Your task to perform on an android device: delete browsing data in the chrome app Image 0: 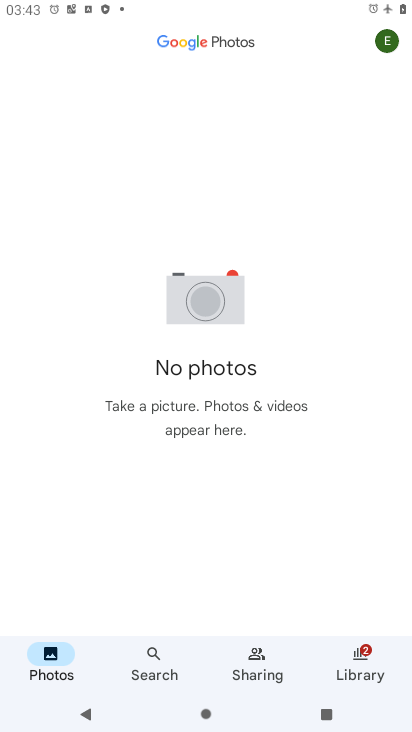
Step 0: press home button
Your task to perform on an android device: delete browsing data in the chrome app Image 1: 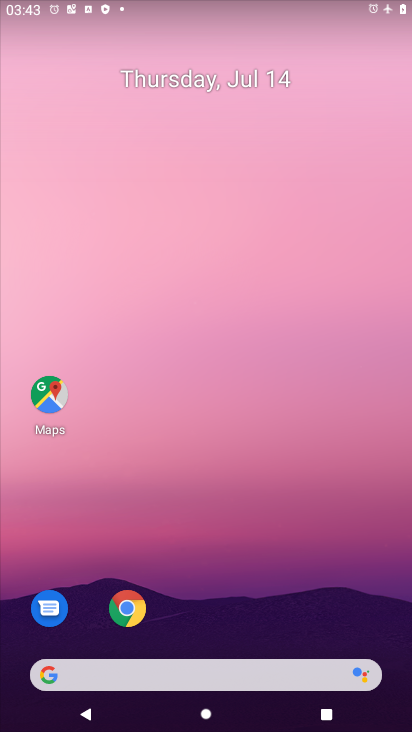
Step 1: click (127, 609)
Your task to perform on an android device: delete browsing data in the chrome app Image 2: 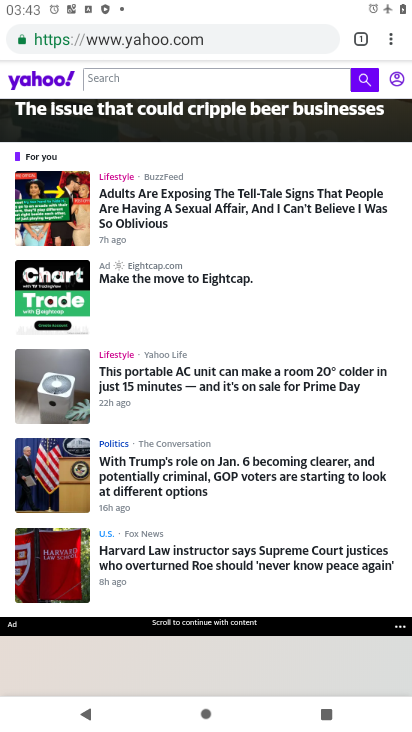
Step 2: click (388, 44)
Your task to perform on an android device: delete browsing data in the chrome app Image 3: 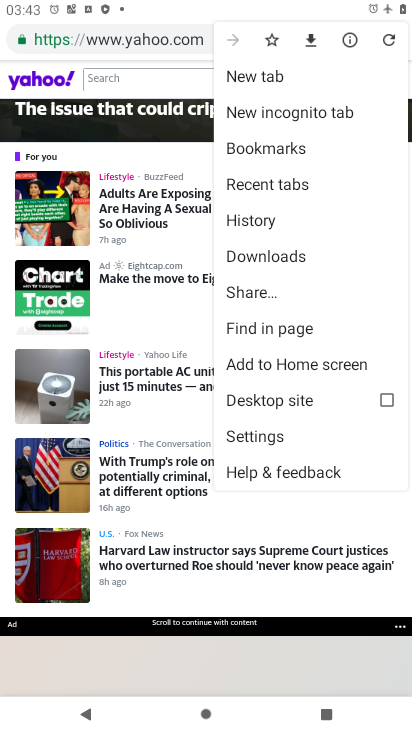
Step 3: click (252, 221)
Your task to perform on an android device: delete browsing data in the chrome app Image 4: 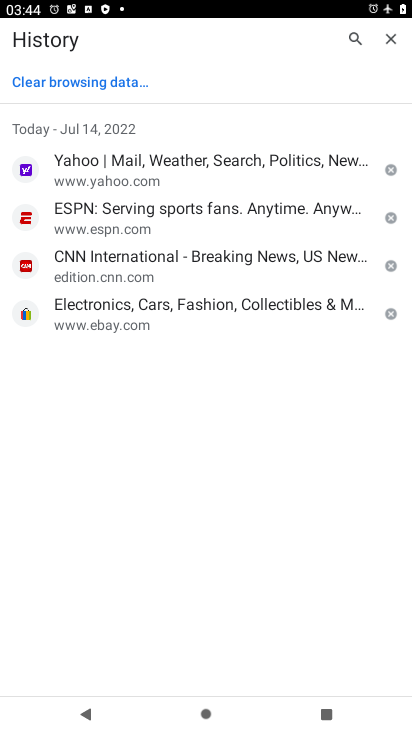
Step 4: click (70, 80)
Your task to perform on an android device: delete browsing data in the chrome app Image 5: 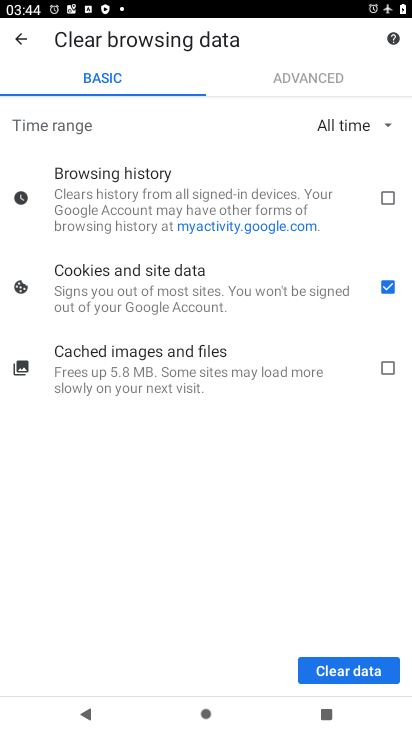
Step 5: click (386, 198)
Your task to perform on an android device: delete browsing data in the chrome app Image 6: 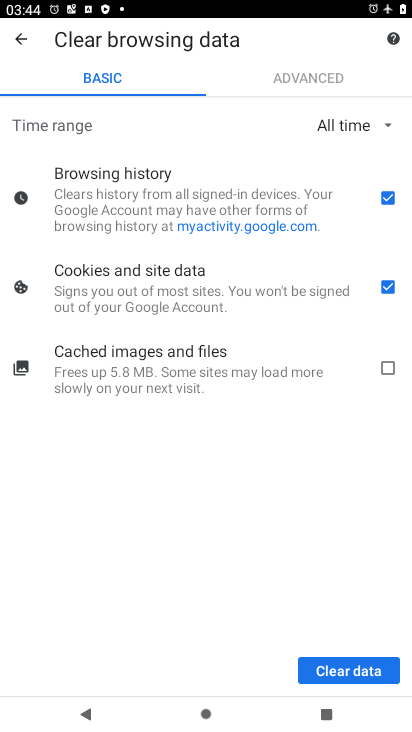
Step 6: click (383, 284)
Your task to perform on an android device: delete browsing data in the chrome app Image 7: 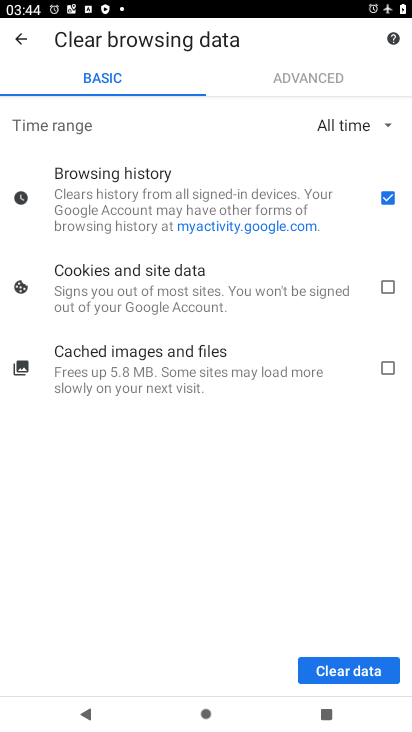
Step 7: click (350, 671)
Your task to perform on an android device: delete browsing data in the chrome app Image 8: 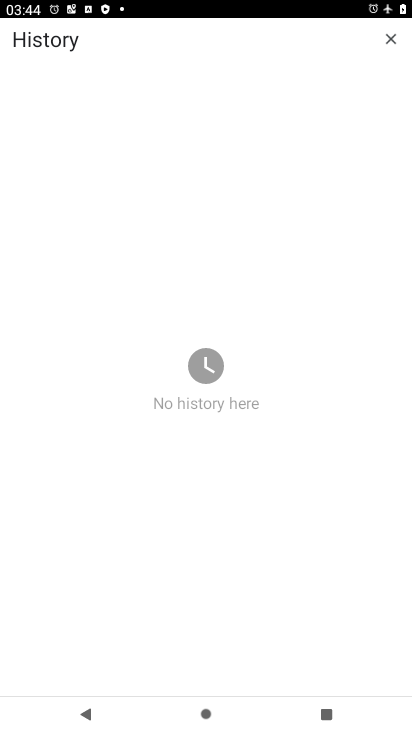
Step 8: task complete